Your task to perform on an android device: Open calendar and show me the fourth week of next month Image 0: 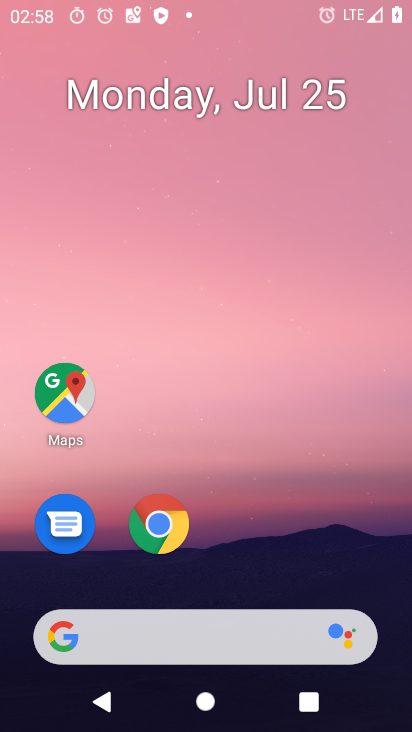
Step 0: press home button
Your task to perform on an android device: Open calendar and show me the fourth week of next month Image 1: 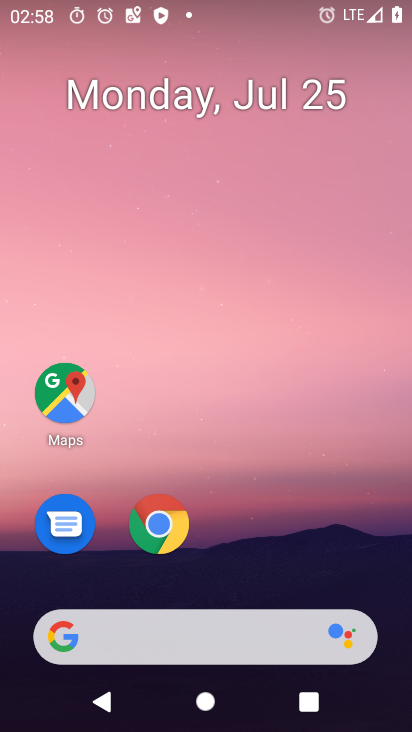
Step 1: drag from (279, 537) to (355, 73)
Your task to perform on an android device: Open calendar and show me the fourth week of next month Image 2: 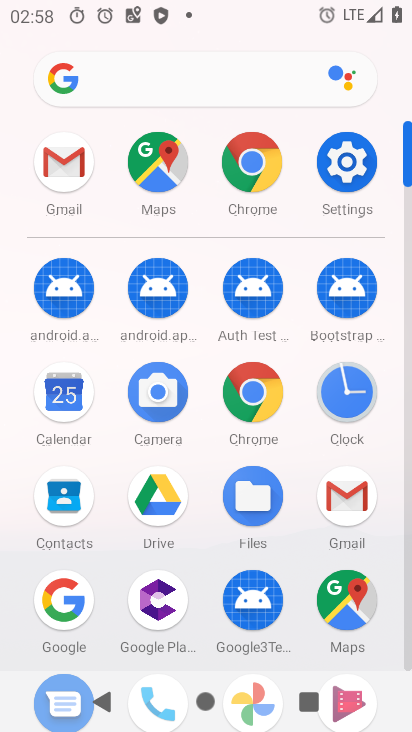
Step 2: click (63, 399)
Your task to perform on an android device: Open calendar and show me the fourth week of next month Image 3: 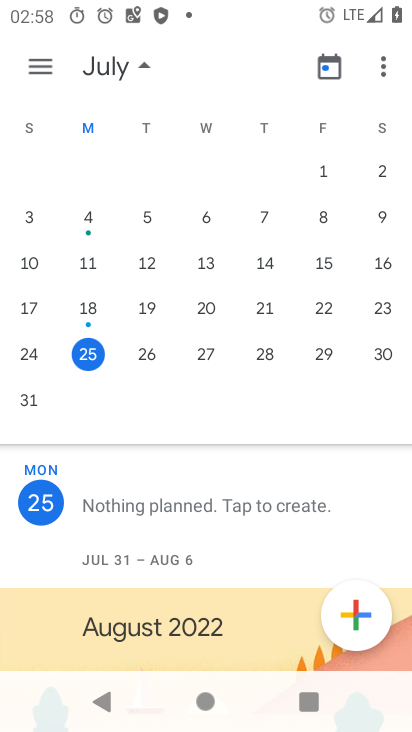
Step 3: drag from (314, 252) to (42, 241)
Your task to perform on an android device: Open calendar and show me the fourth week of next month Image 4: 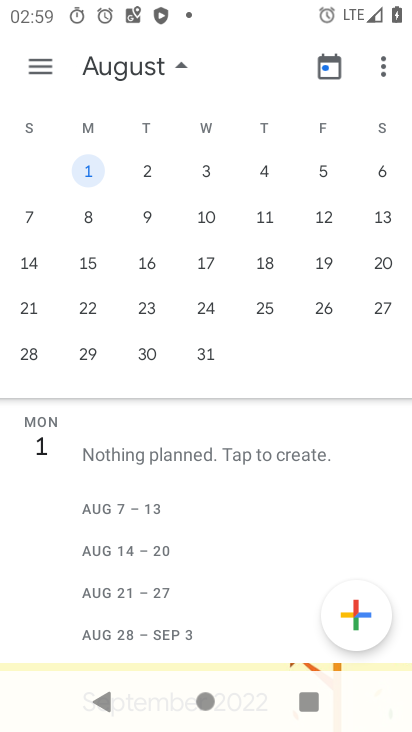
Step 4: click (85, 317)
Your task to perform on an android device: Open calendar and show me the fourth week of next month Image 5: 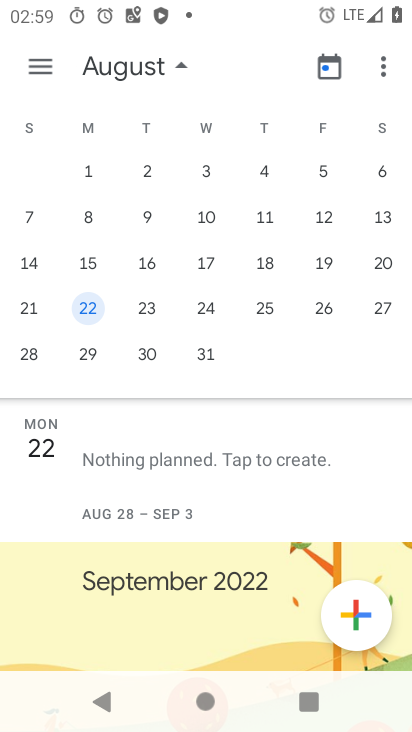
Step 5: click (143, 313)
Your task to perform on an android device: Open calendar and show me the fourth week of next month Image 6: 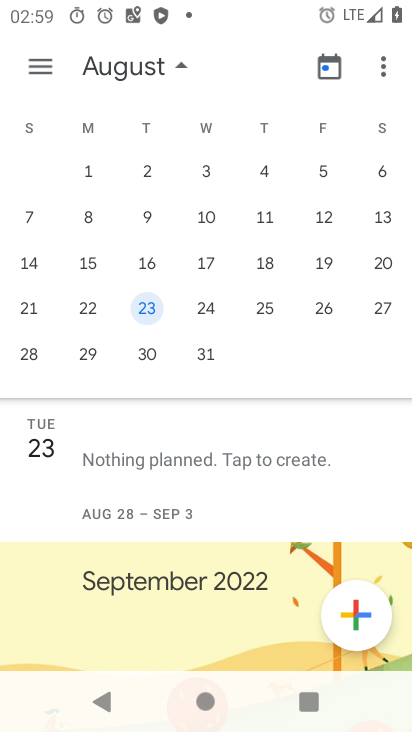
Step 6: click (206, 317)
Your task to perform on an android device: Open calendar and show me the fourth week of next month Image 7: 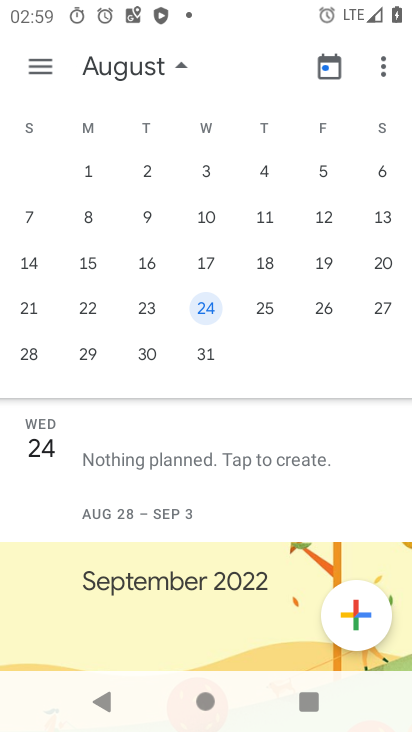
Step 7: click (268, 312)
Your task to perform on an android device: Open calendar and show me the fourth week of next month Image 8: 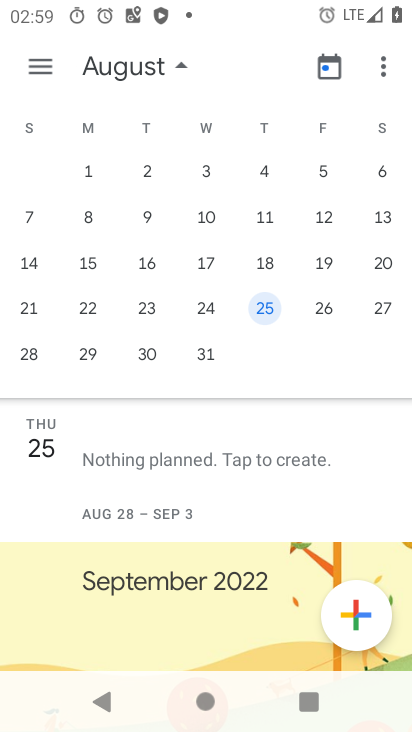
Step 8: click (333, 315)
Your task to perform on an android device: Open calendar and show me the fourth week of next month Image 9: 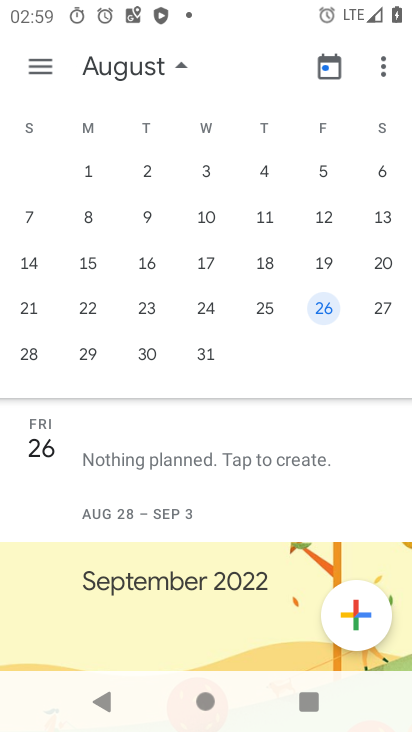
Step 9: click (381, 312)
Your task to perform on an android device: Open calendar and show me the fourth week of next month Image 10: 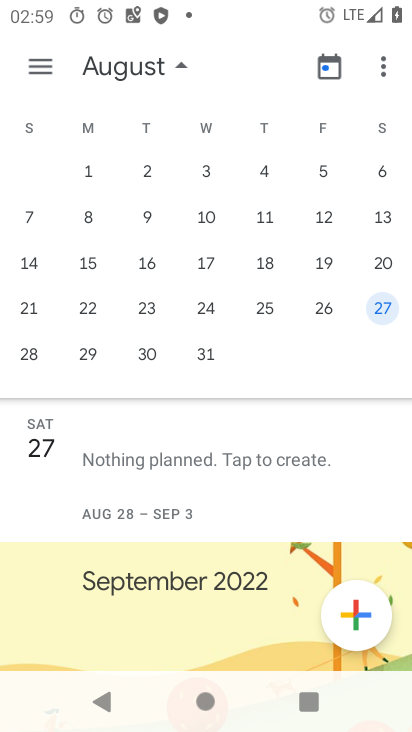
Step 10: click (28, 349)
Your task to perform on an android device: Open calendar and show me the fourth week of next month Image 11: 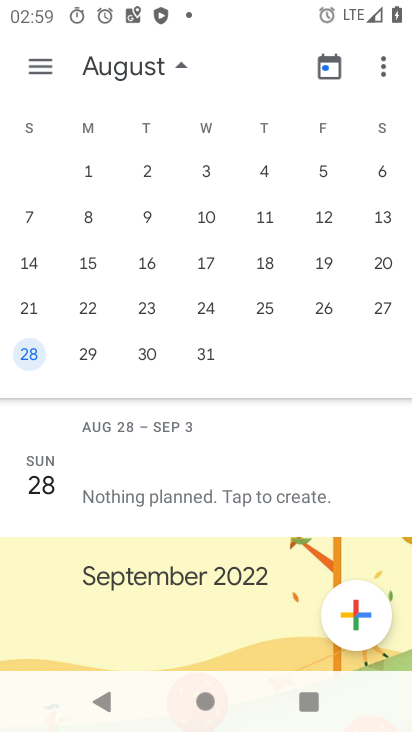
Step 11: task complete